Your task to perform on an android device: Go to sound settings Image 0: 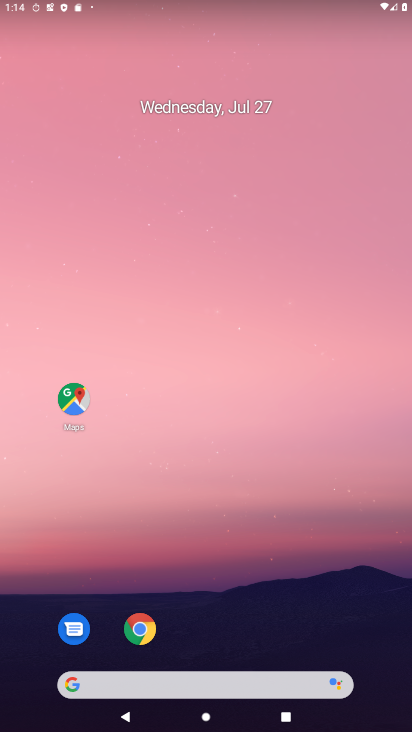
Step 0: drag from (369, 619) to (131, 45)
Your task to perform on an android device: Go to sound settings Image 1: 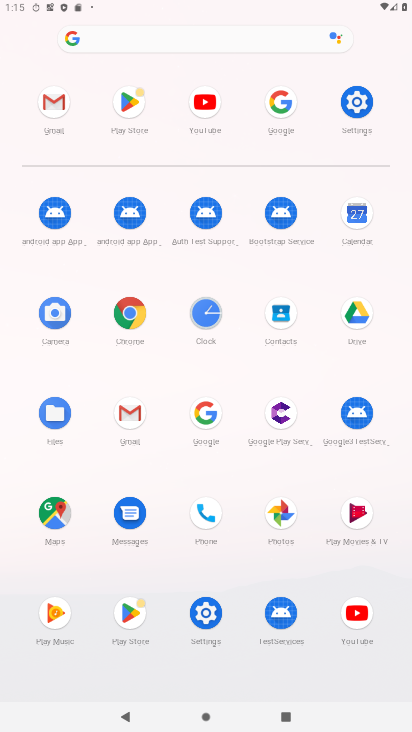
Step 1: click (195, 624)
Your task to perform on an android device: Go to sound settings Image 2: 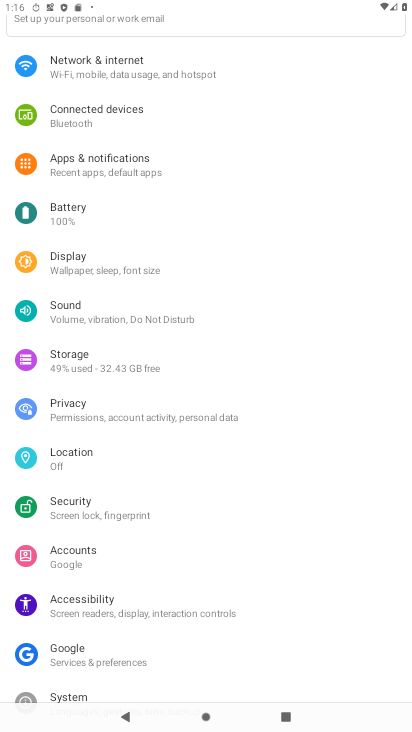
Step 2: click (52, 320)
Your task to perform on an android device: Go to sound settings Image 3: 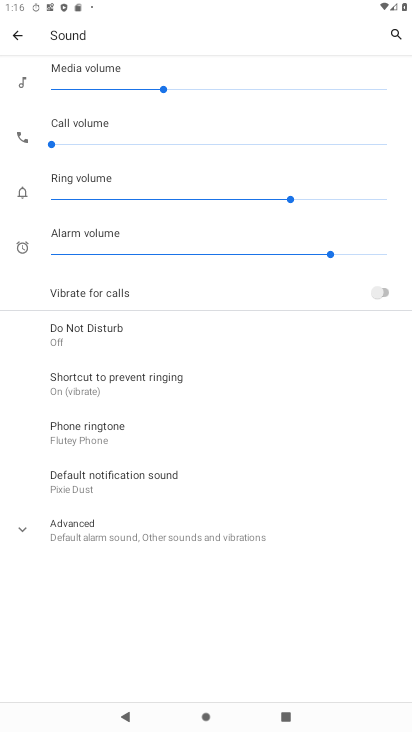
Step 3: task complete